Your task to perform on an android device: Go to eBay Image 0: 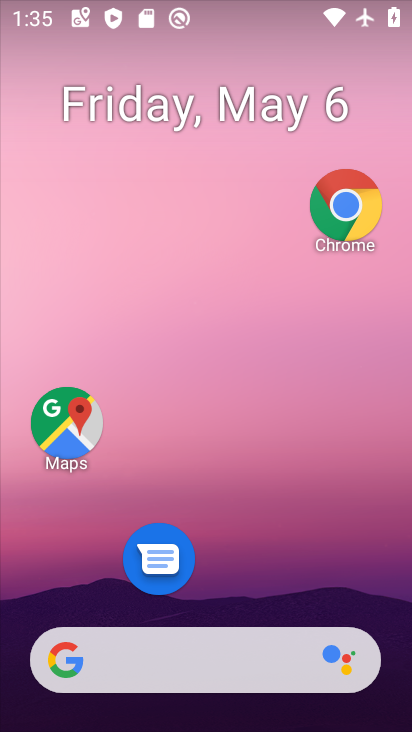
Step 0: drag from (193, 661) to (317, 78)
Your task to perform on an android device: Go to eBay Image 1: 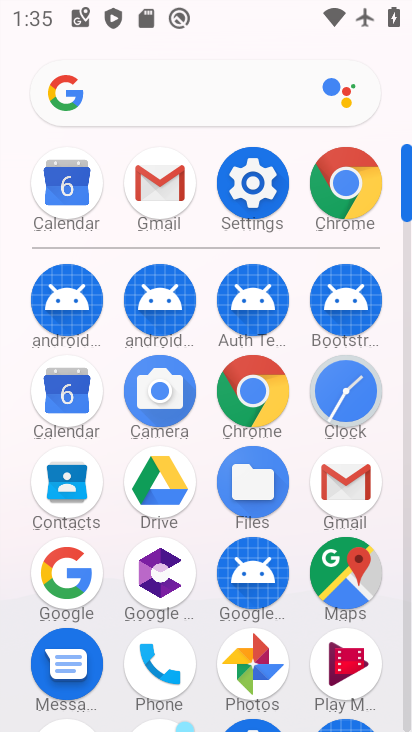
Step 1: click (345, 203)
Your task to perform on an android device: Go to eBay Image 2: 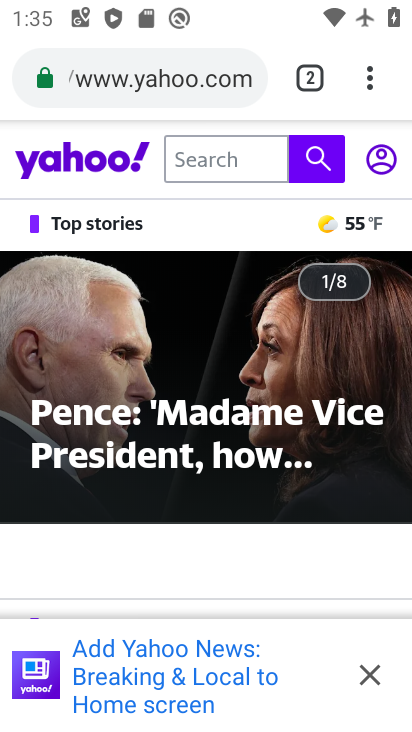
Step 2: drag from (370, 82) to (150, 148)
Your task to perform on an android device: Go to eBay Image 3: 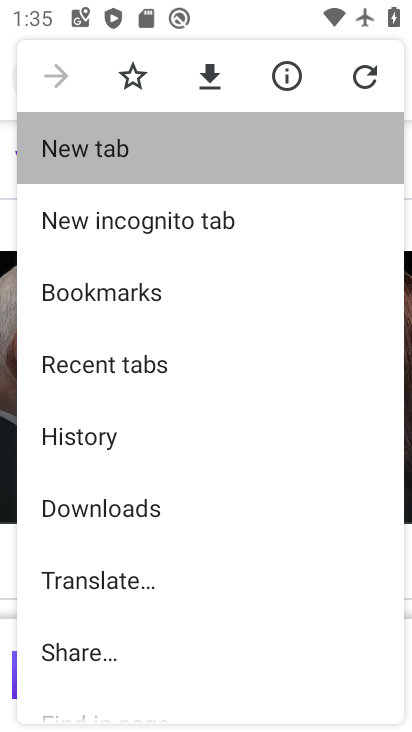
Step 3: click (150, 148)
Your task to perform on an android device: Go to eBay Image 4: 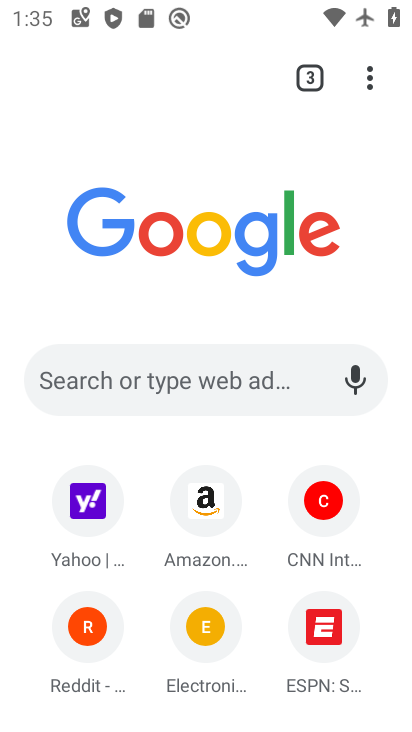
Step 4: drag from (221, 453) to (265, 93)
Your task to perform on an android device: Go to eBay Image 5: 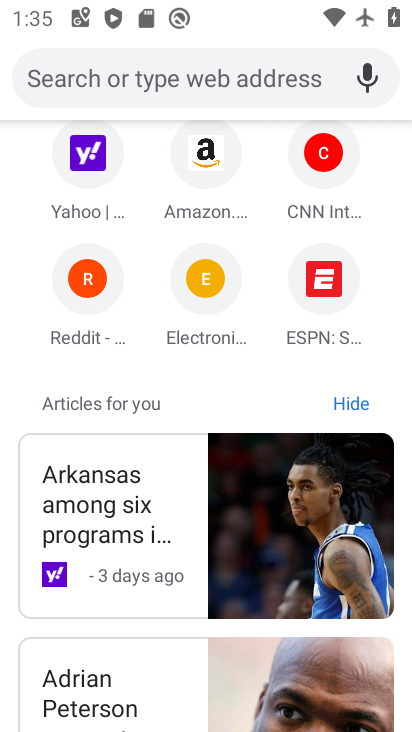
Step 5: drag from (300, 280) to (295, 440)
Your task to perform on an android device: Go to eBay Image 6: 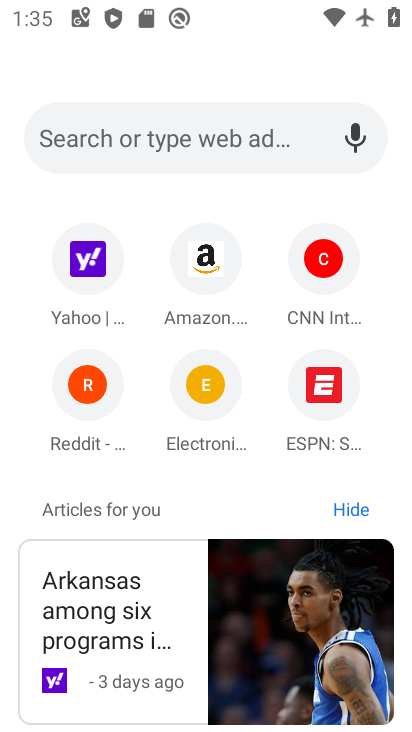
Step 6: click (156, 138)
Your task to perform on an android device: Go to eBay Image 7: 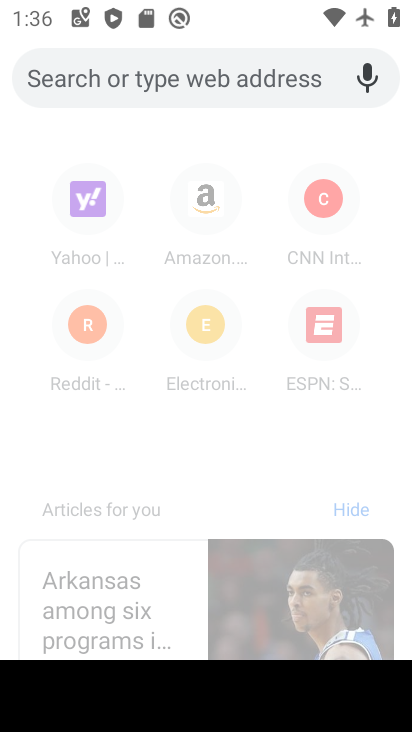
Step 7: type "ebay"
Your task to perform on an android device: Go to eBay Image 8: 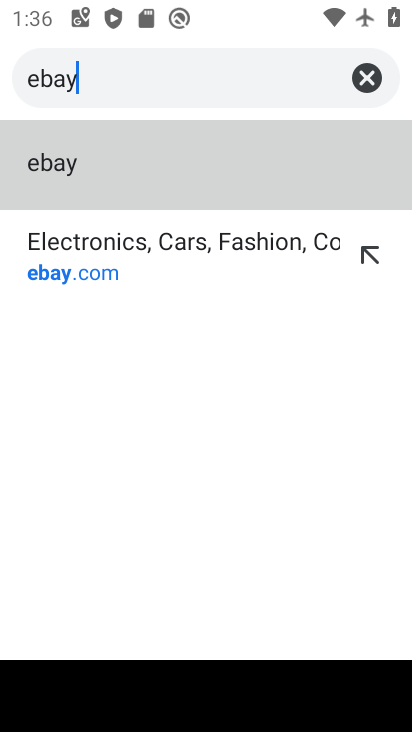
Step 8: click (57, 167)
Your task to perform on an android device: Go to eBay Image 9: 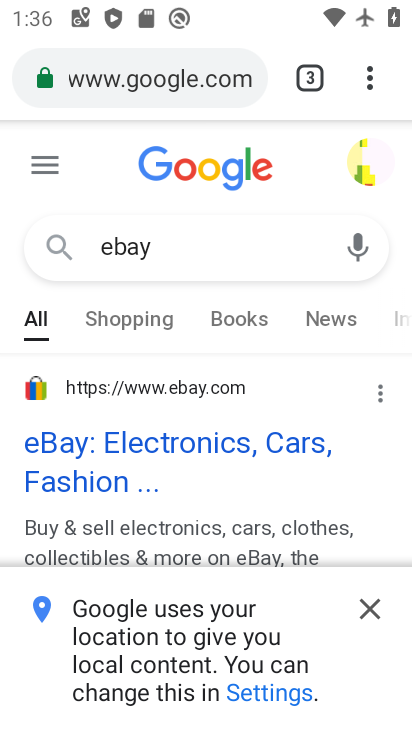
Step 9: click (209, 437)
Your task to perform on an android device: Go to eBay Image 10: 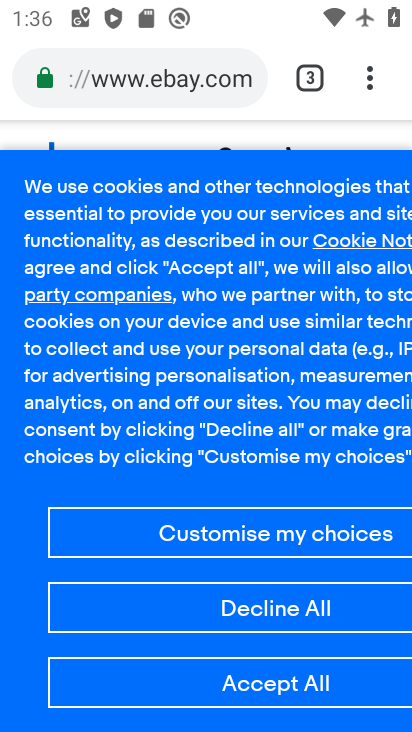
Step 10: task complete